Your task to perform on an android device: see tabs open on other devices in the chrome app Image 0: 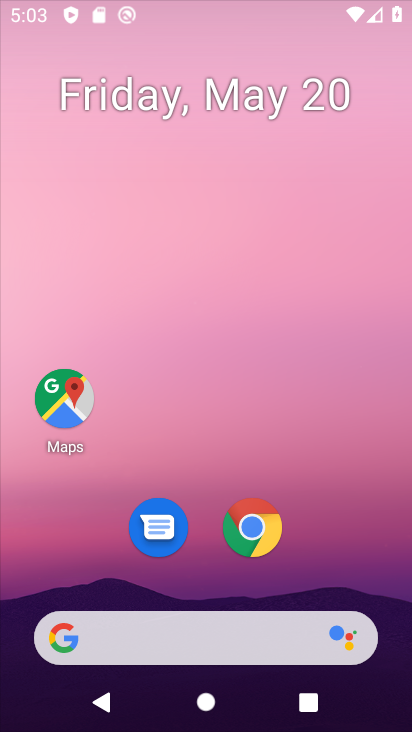
Step 0: drag from (351, 606) to (367, 16)
Your task to perform on an android device: see tabs open on other devices in the chrome app Image 1: 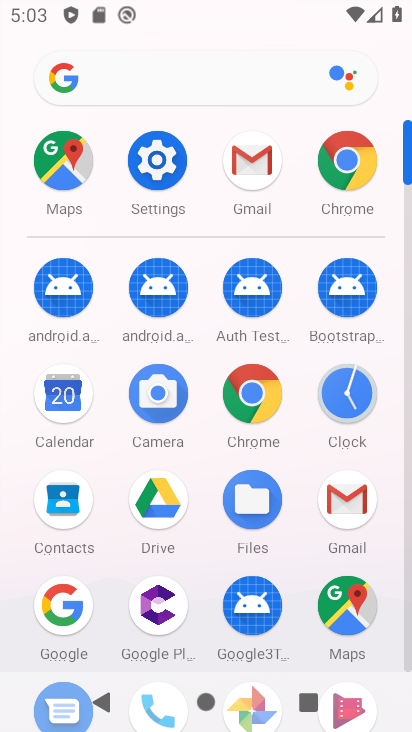
Step 1: click (260, 396)
Your task to perform on an android device: see tabs open on other devices in the chrome app Image 2: 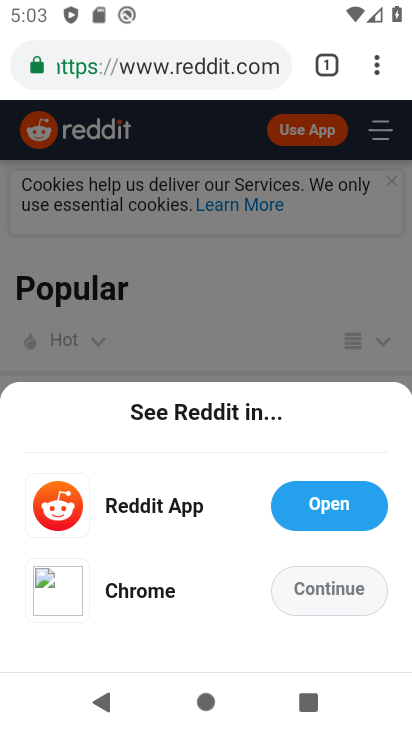
Step 2: task complete